Your task to perform on an android device: Show the shopping cart on costco. Image 0: 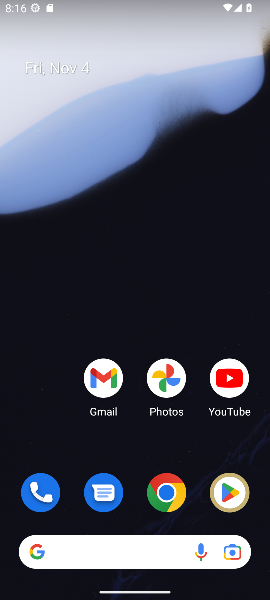
Step 0: drag from (130, 461) to (159, 1)
Your task to perform on an android device: Show the shopping cart on costco. Image 1: 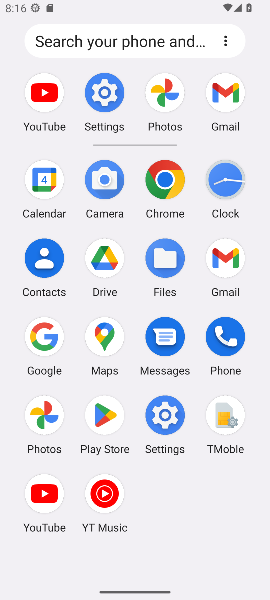
Step 1: click (167, 176)
Your task to perform on an android device: Show the shopping cart on costco. Image 2: 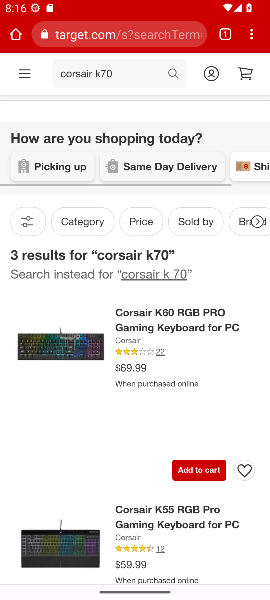
Step 2: click (139, 36)
Your task to perform on an android device: Show the shopping cart on costco. Image 3: 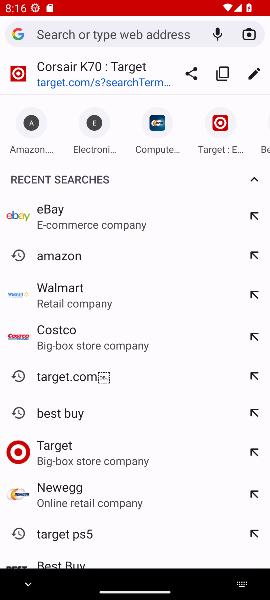
Step 3: type "costco.com"
Your task to perform on an android device: Show the shopping cart on costco. Image 4: 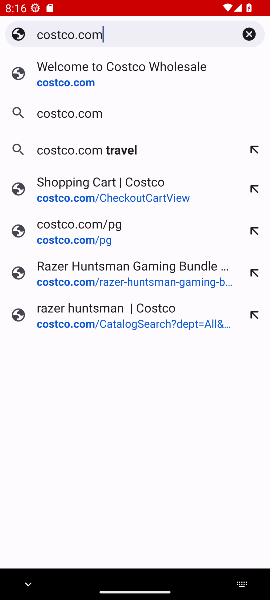
Step 4: press enter
Your task to perform on an android device: Show the shopping cart on costco. Image 5: 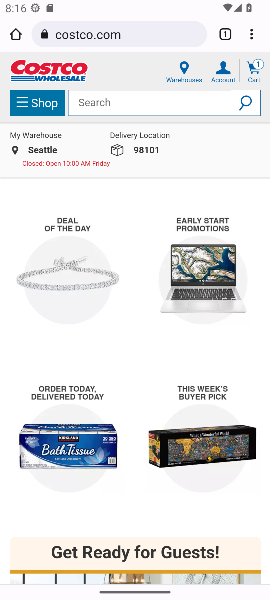
Step 5: click (251, 68)
Your task to perform on an android device: Show the shopping cart on costco. Image 6: 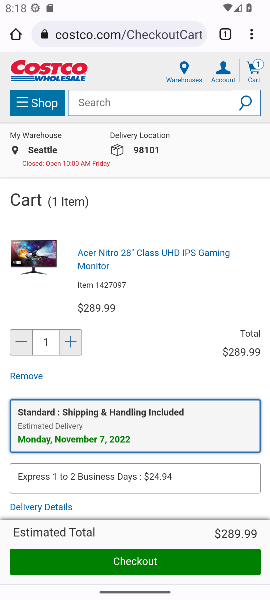
Step 6: task complete